Your task to perform on an android device: Open Google Maps and go to "Timeline" Image 0: 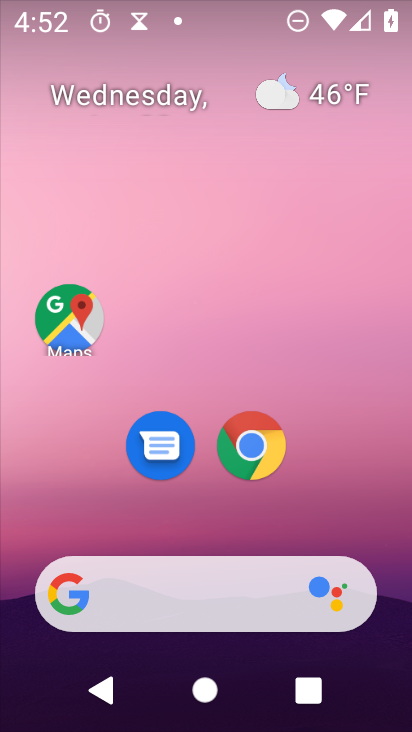
Step 0: click (70, 317)
Your task to perform on an android device: Open Google Maps and go to "Timeline" Image 1: 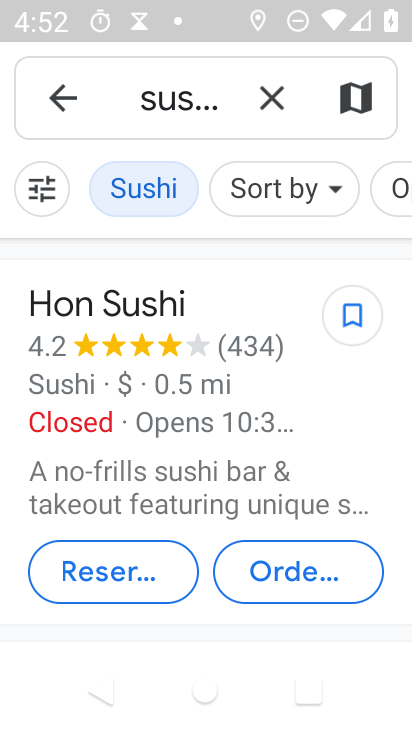
Step 1: click (272, 102)
Your task to perform on an android device: Open Google Maps and go to "Timeline" Image 2: 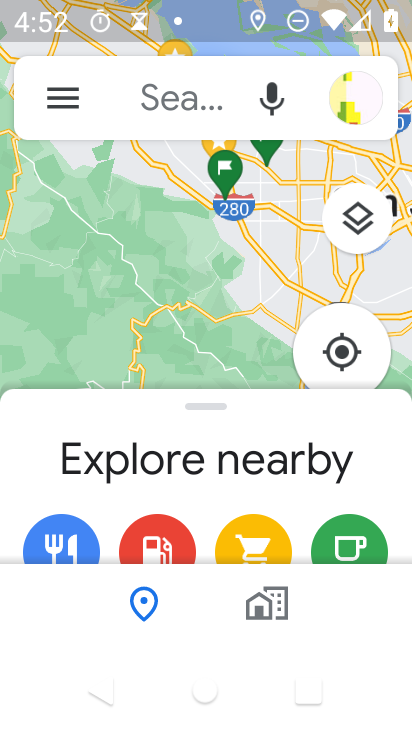
Step 2: click (71, 90)
Your task to perform on an android device: Open Google Maps and go to "Timeline" Image 3: 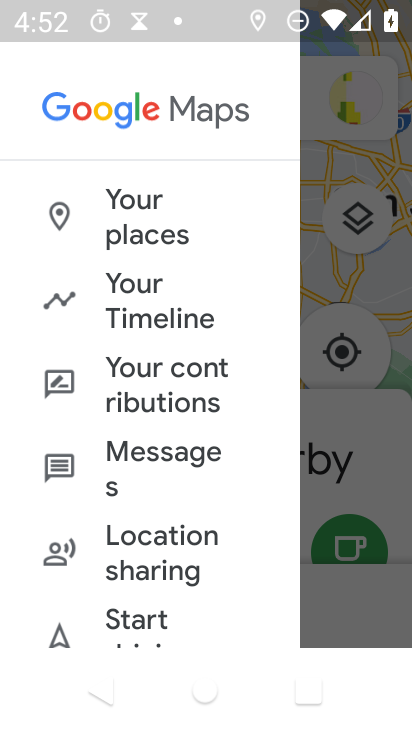
Step 3: click (141, 298)
Your task to perform on an android device: Open Google Maps and go to "Timeline" Image 4: 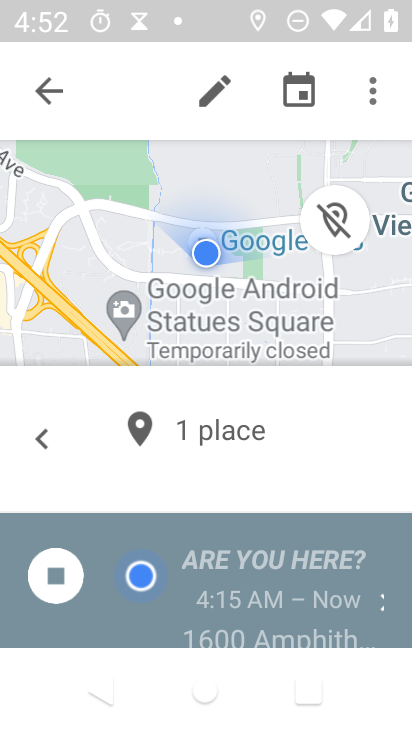
Step 4: task complete